Your task to perform on an android device: Search for Mexican restaurants on Maps Image 0: 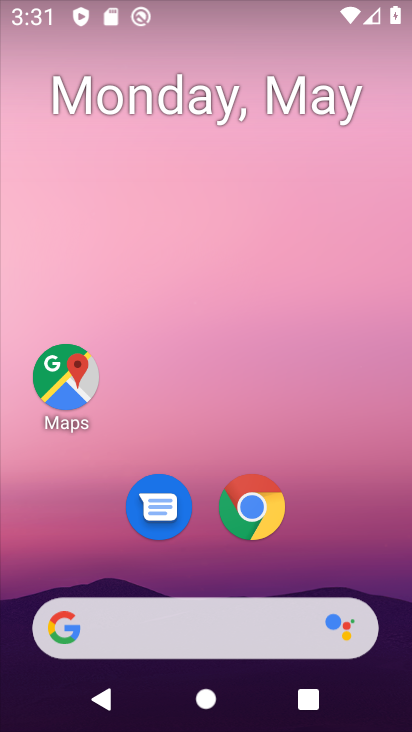
Step 0: click (62, 382)
Your task to perform on an android device: Search for Mexican restaurants on Maps Image 1: 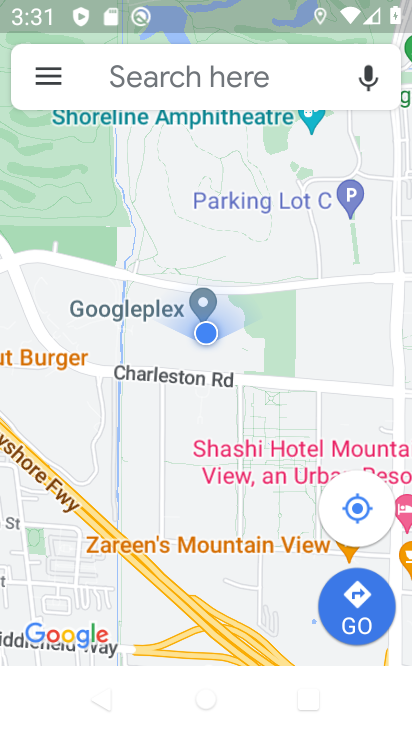
Step 1: click (201, 81)
Your task to perform on an android device: Search for Mexican restaurants on Maps Image 2: 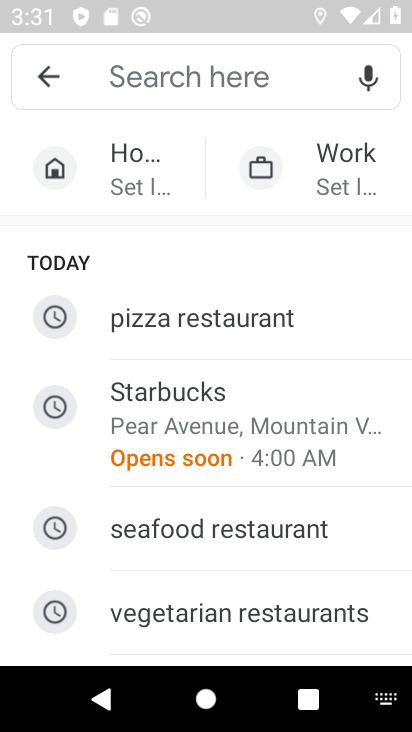
Step 2: type "mexican restaurant"
Your task to perform on an android device: Search for Mexican restaurants on Maps Image 3: 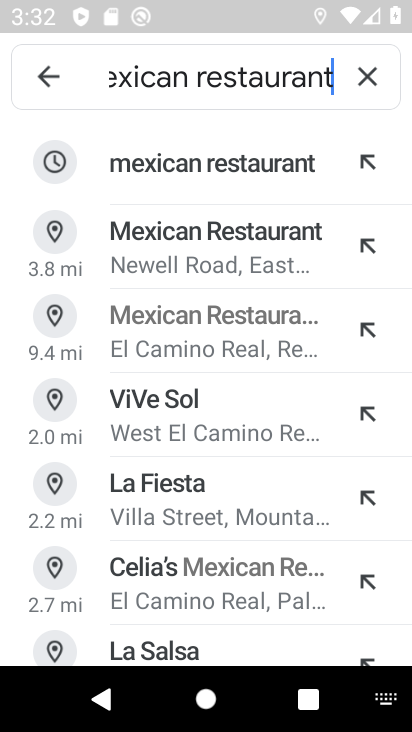
Step 3: click (176, 169)
Your task to perform on an android device: Search for Mexican restaurants on Maps Image 4: 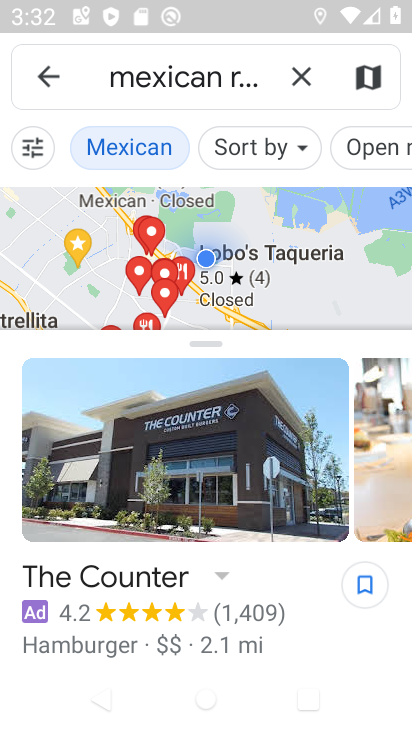
Step 4: task complete